Your task to perform on an android device: Open Google Chrome Image 0: 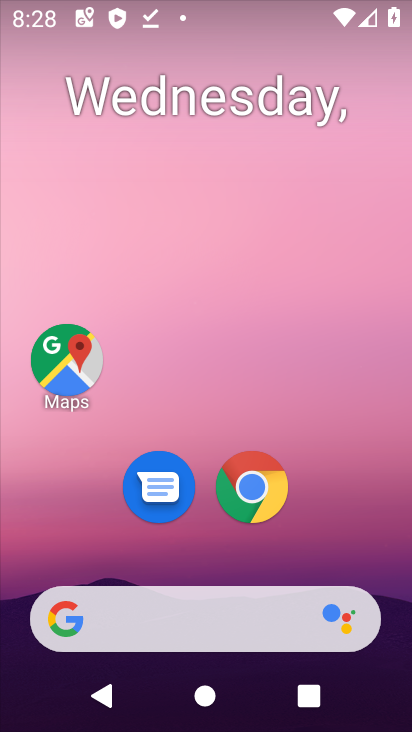
Step 0: drag from (244, 294) to (233, 227)
Your task to perform on an android device: Open Google Chrome Image 1: 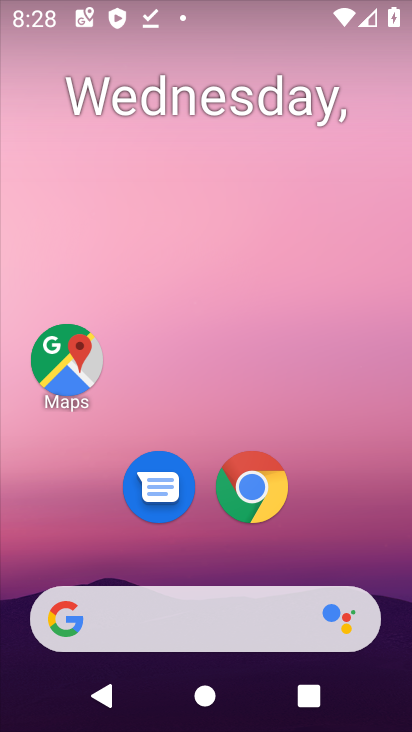
Step 1: drag from (246, 321) to (246, 228)
Your task to perform on an android device: Open Google Chrome Image 2: 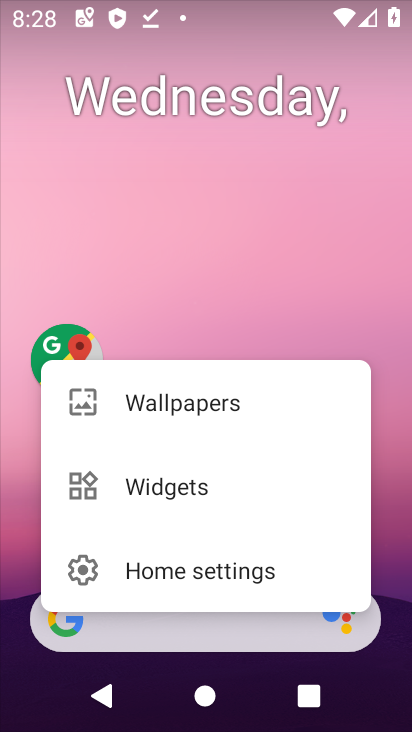
Step 2: drag from (231, 571) to (213, 56)
Your task to perform on an android device: Open Google Chrome Image 3: 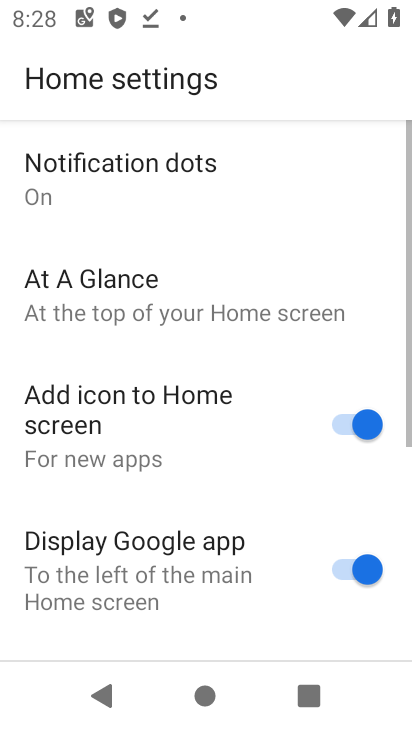
Step 3: drag from (254, 26) to (193, 151)
Your task to perform on an android device: Open Google Chrome Image 4: 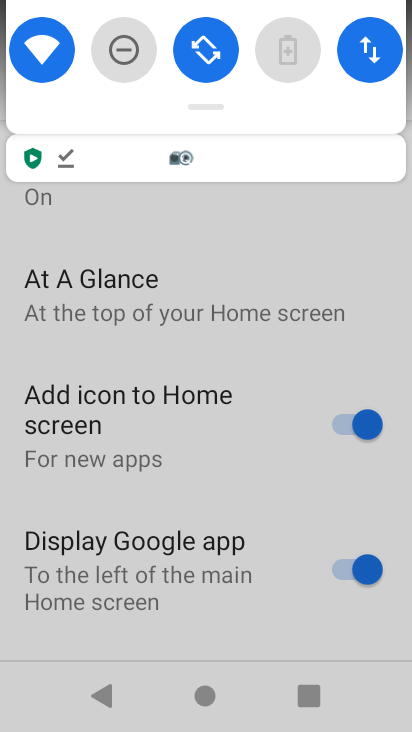
Step 4: drag from (228, 530) to (268, 72)
Your task to perform on an android device: Open Google Chrome Image 5: 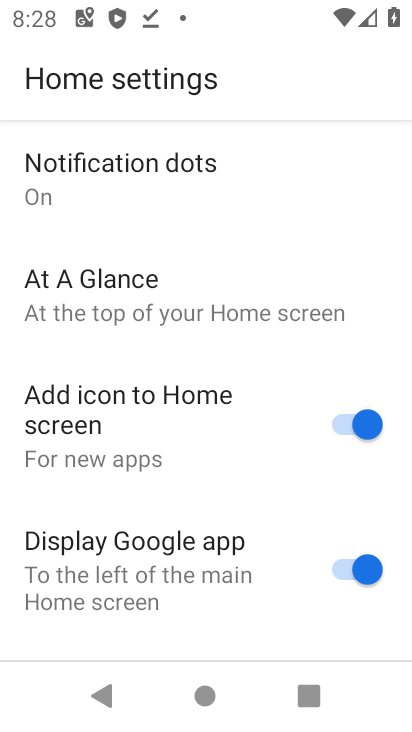
Step 5: click (231, 285)
Your task to perform on an android device: Open Google Chrome Image 6: 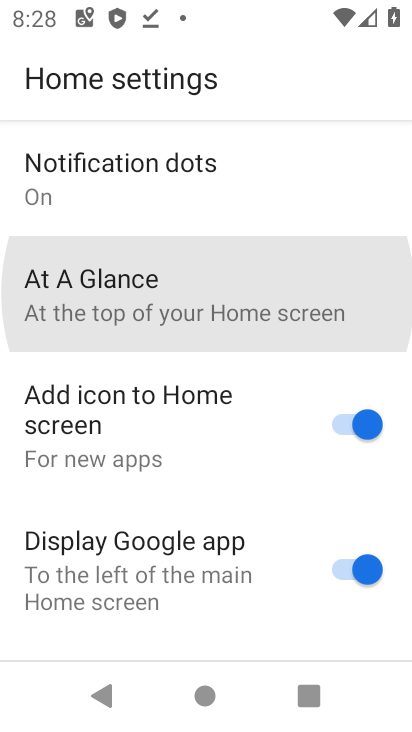
Step 6: click (204, 80)
Your task to perform on an android device: Open Google Chrome Image 7: 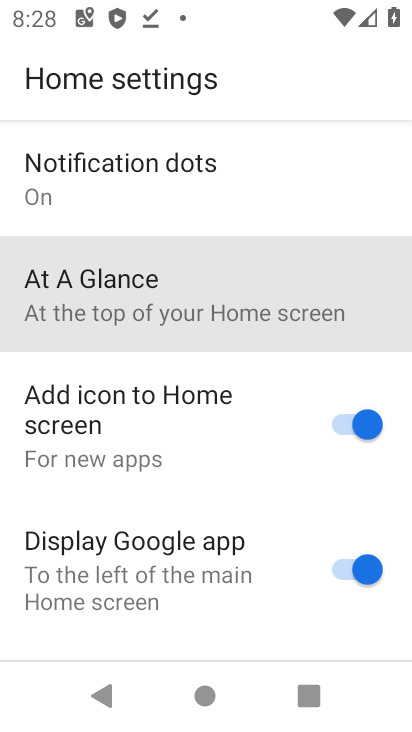
Step 7: press back button
Your task to perform on an android device: Open Google Chrome Image 8: 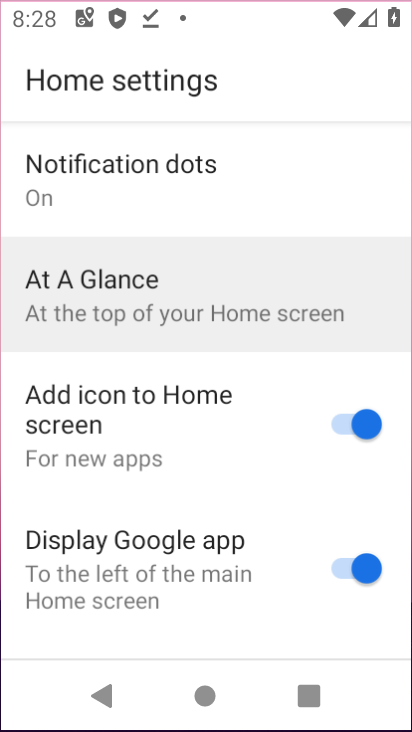
Step 8: click (228, 93)
Your task to perform on an android device: Open Google Chrome Image 9: 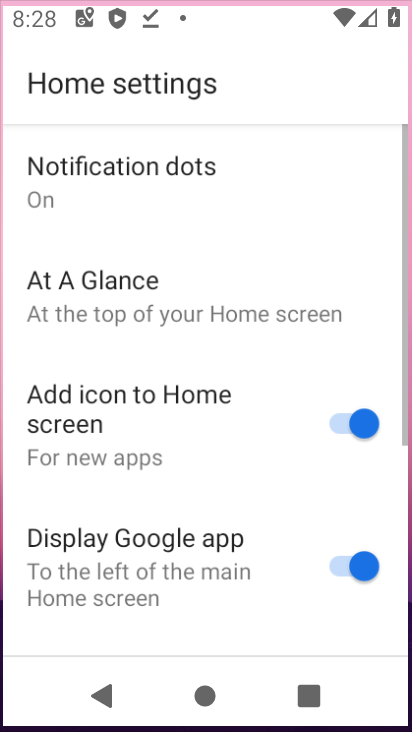
Step 9: click (163, 161)
Your task to perform on an android device: Open Google Chrome Image 10: 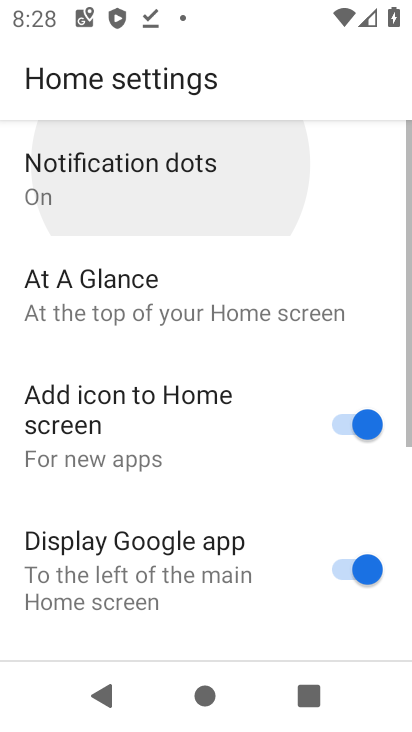
Step 10: click (204, 151)
Your task to perform on an android device: Open Google Chrome Image 11: 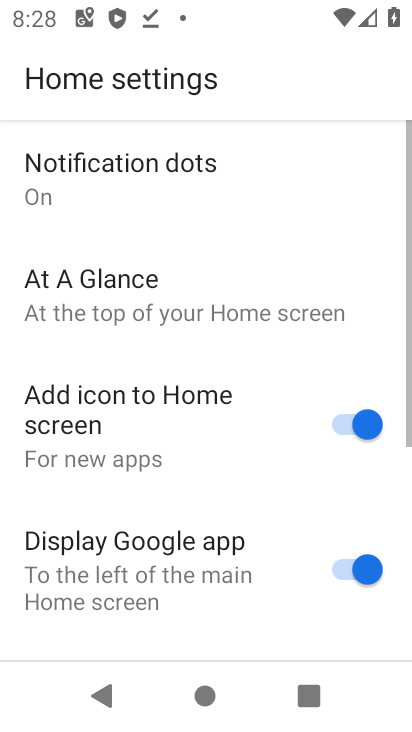
Step 11: drag from (173, 163) to (297, 60)
Your task to perform on an android device: Open Google Chrome Image 12: 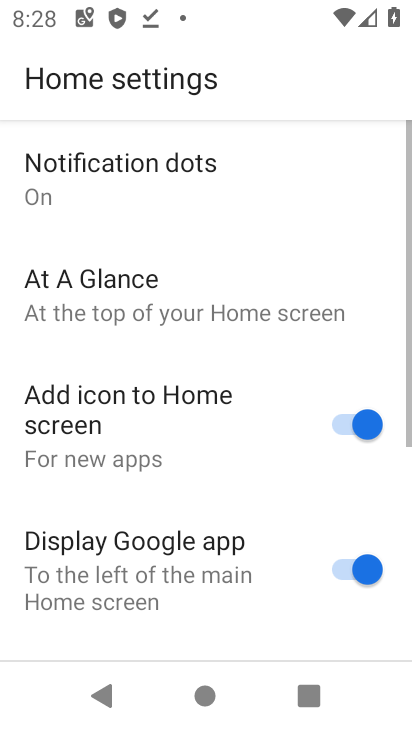
Step 12: click (248, 141)
Your task to perform on an android device: Open Google Chrome Image 13: 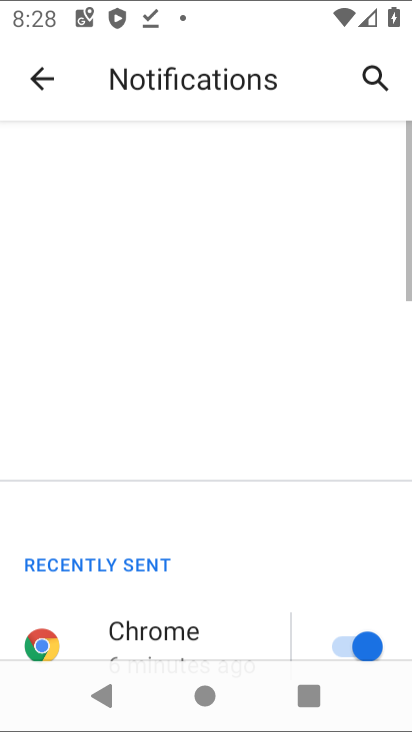
Step 13: click (218, 221)
Your task to perform on an android device: Open Google Chrome Image 14: 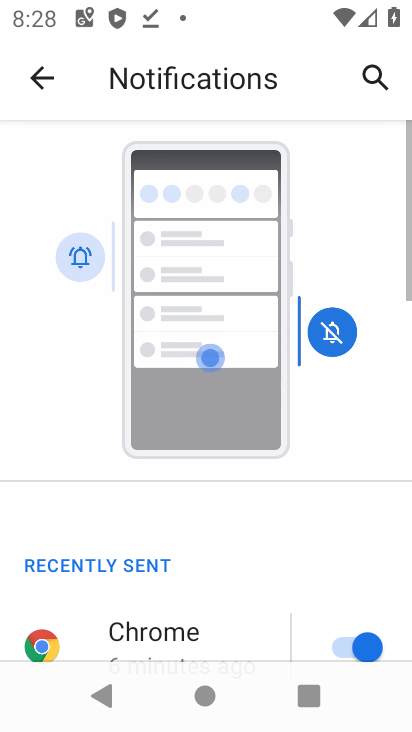
Step 14: click (114, 285)
Your task to perform on an android device: Open Google Chrome Image 15: 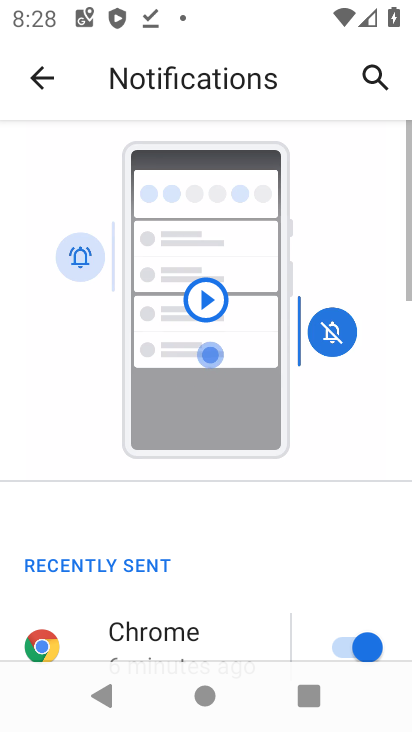
Step 15: drag from (5, 487) to (251, 212)
Your task to perform on an android device: Open Google Chrome Image 16: 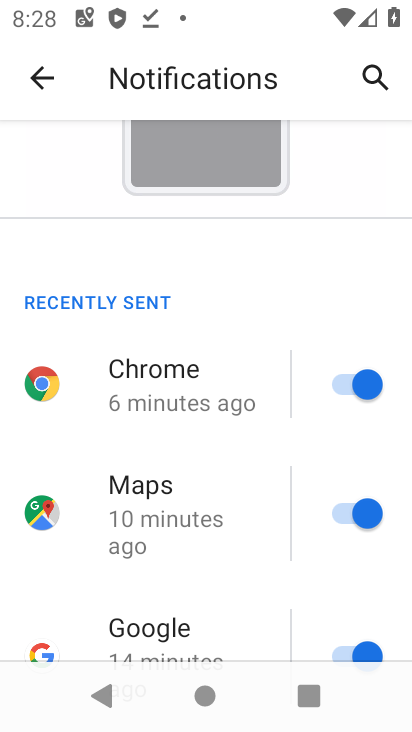
Step 16: press back button
Your task to perform on an android device: Open Google Chrome Image 17: 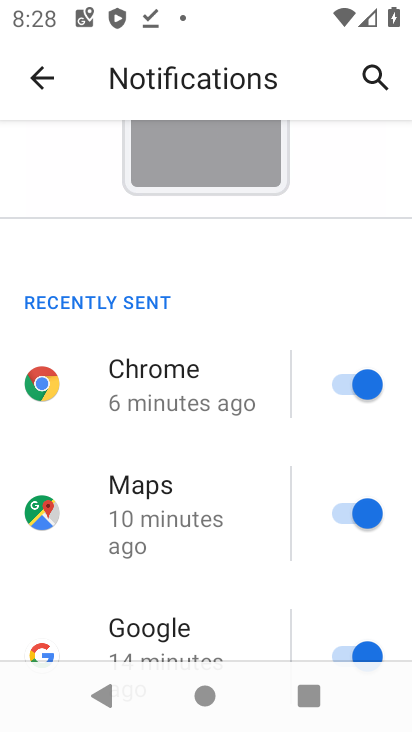
Step 17: press home button
Your task to perform on an android device: Open Google Chrome Image 18: 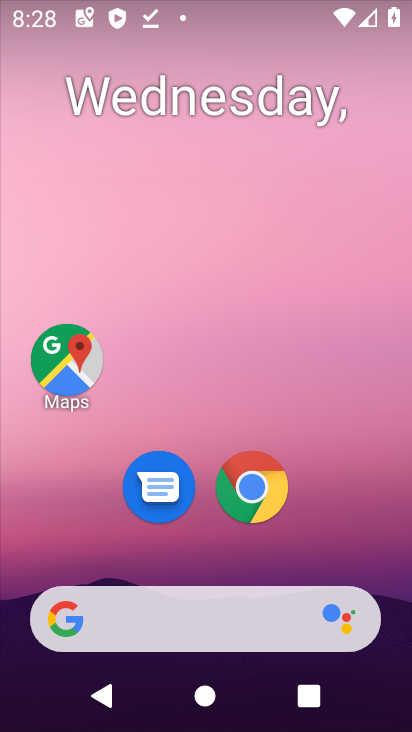
Step 18: drag from (310, 543) to (158, 66)
Your task to perform on an android device: Open Google Chrome Image 19: 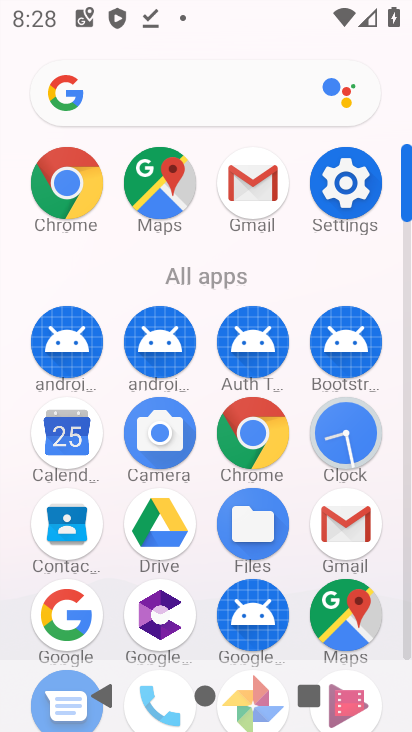
Step 19: click (56, 194)
Your task to perform on an android device: Open Google Chrome Image 20: 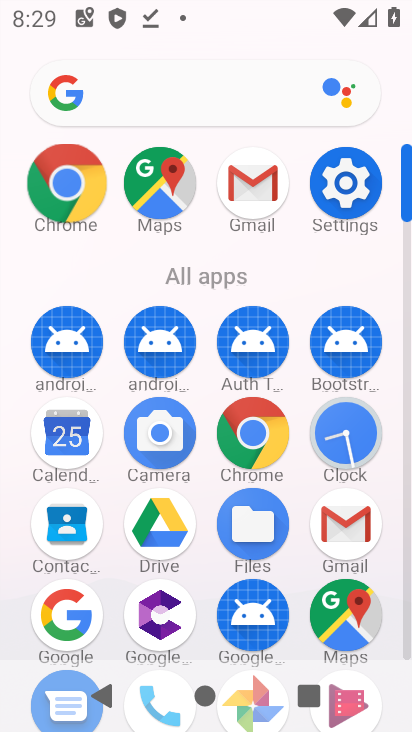
Step 20: click (56, 194)
Your task to perform on an android device: Open Google Chrome Image 21: 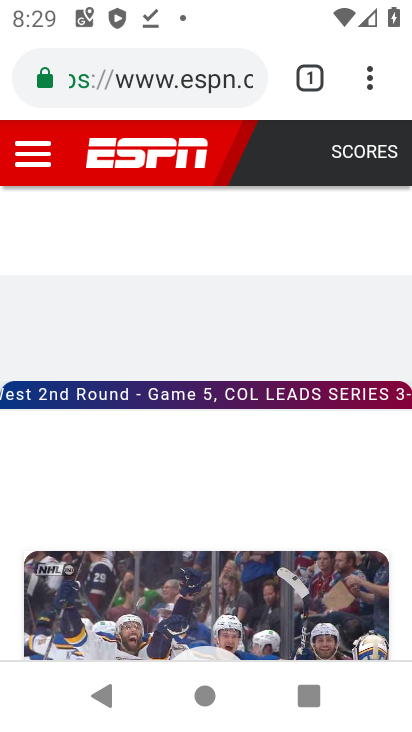
Step 21: click (65, 185)
Your task to perform on an android device: Open Google Chrome Image 22: 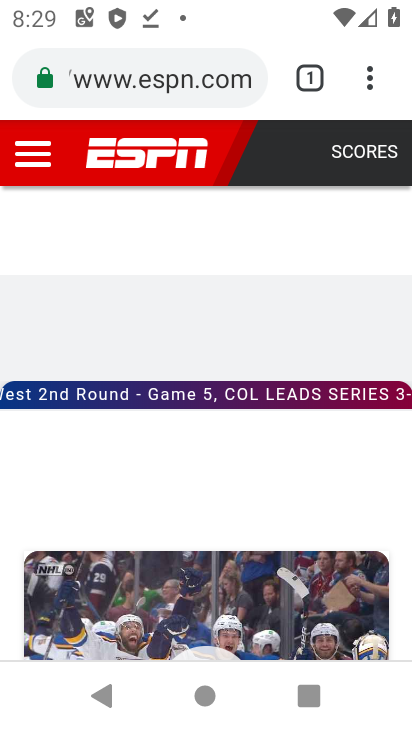
Step 22: task complete